Your task to perform on an android device: create a new album in the google photos Image 0: 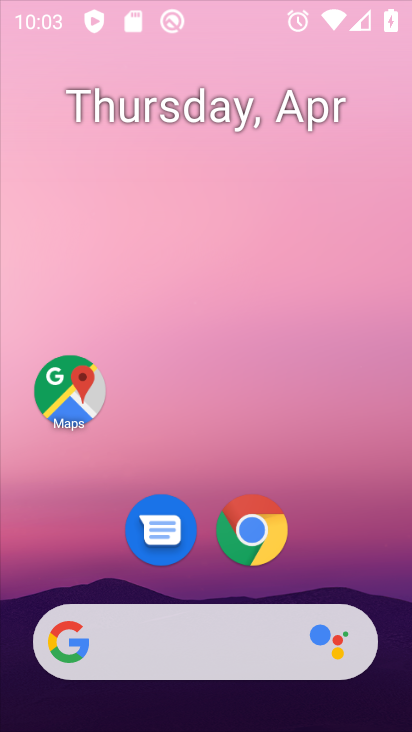
Step 0: drag from (285, 52) to (302, 588)
Your task to perform on an android device: create a new album in the google photos Image 1: 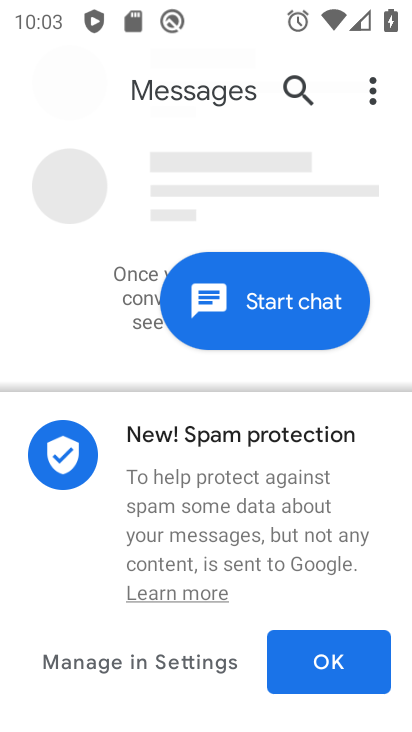
Step 1: press back button
Your task to perform on an android device: create a new album in the google photos Image 2: 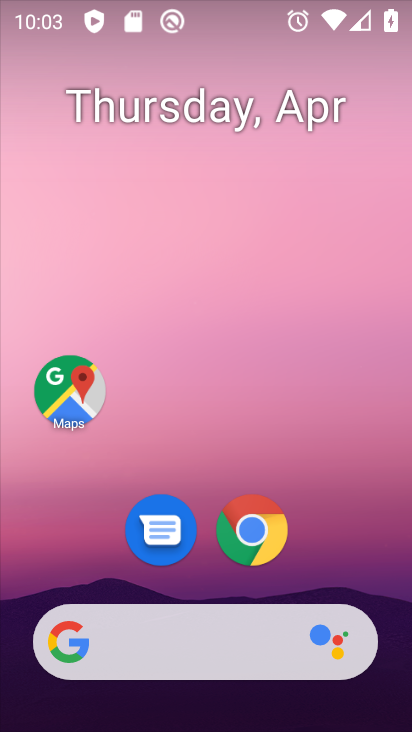
Step 2: drag from (205, 475) to (271, 34)
Your task to perform on an android device: create a new album in the google photos Image 3: 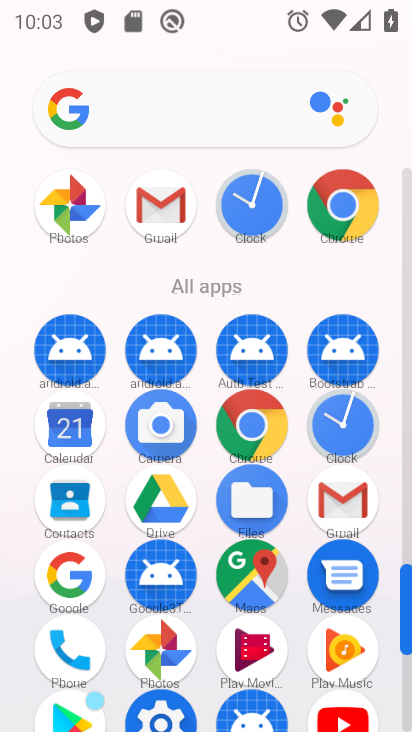
Step 3: drag from (189, 663) to (271, 374)
Your task to perform on an android device: create a new album in the google photos Image 4: 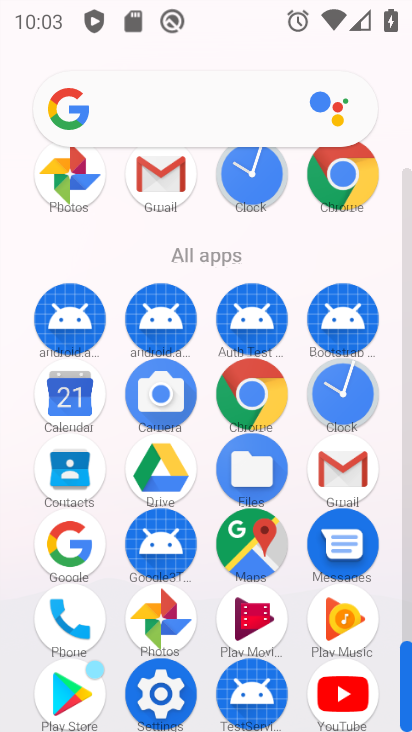
Step 4: click (165, 593)
Your task to perform on an android device: create a new album in the google photos Image 5: 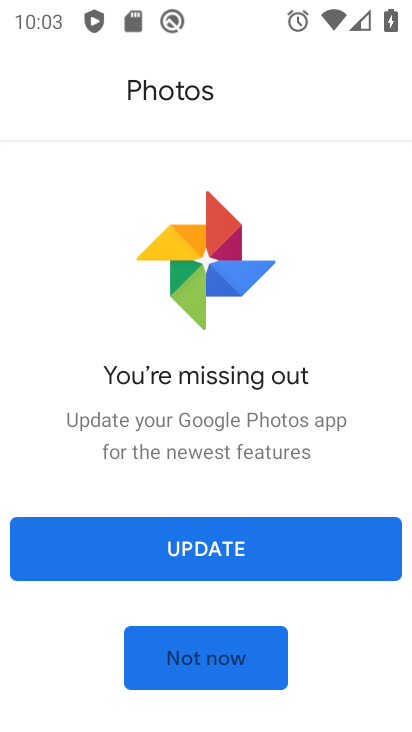
Step 5: click (245, 570)
Your task to perform on an android device: create a new album in the google photos Image 6: 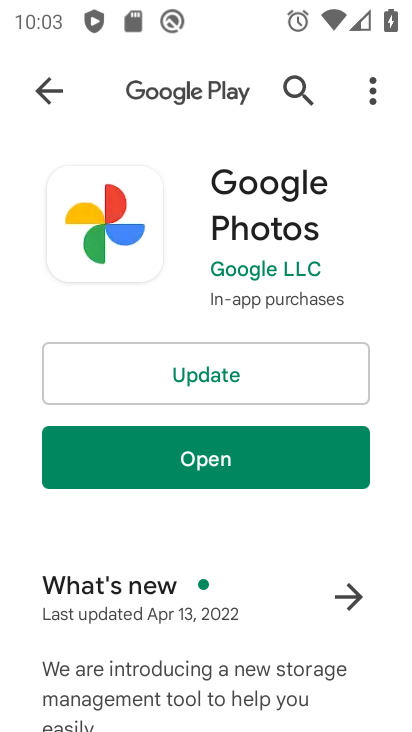
Step 6: click (274, 383)
Your task to perform on an android device: create a new album in the google photos Image 7: 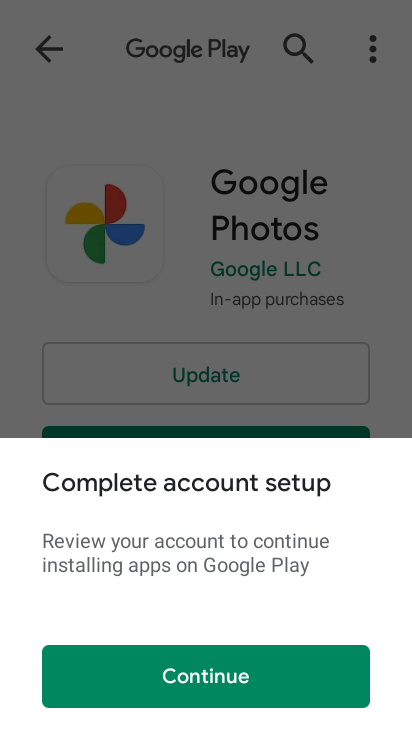
Step 7: click (294, 697)
Your task to perform on an android device: create a new album in the google photos Image 8: 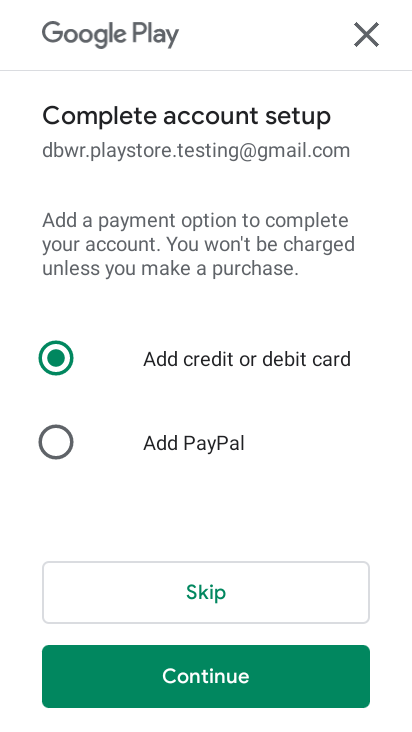
Step 8: click (266, 597)
Your task to perform on an android device: create a new album in the google photos Image 9: 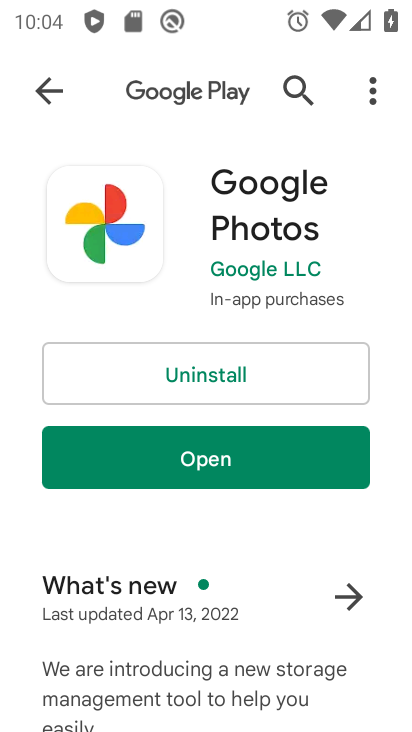
Step 9: click (257, 468)
Your task to perform on an android device: create a new album in the google photos Image 10: 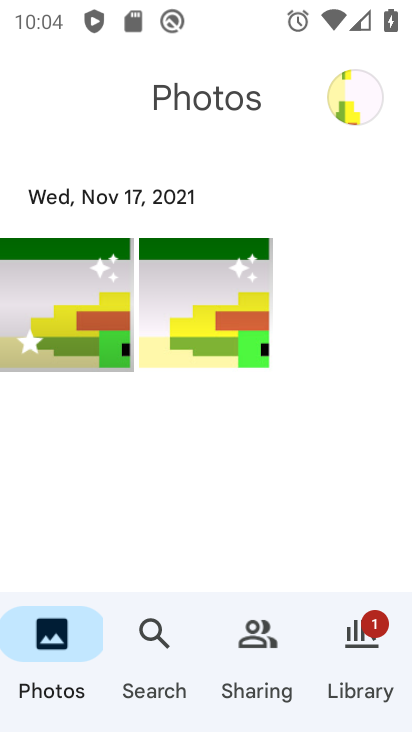
Step 10: click (183, 329)
Your task to perform on an android device: create a new album in the google photos Image 11: 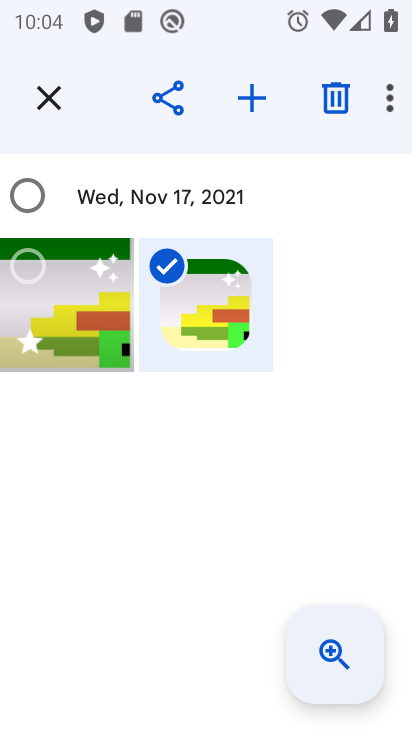
Step 11: click (83, 335)
Your task to perform on an android device: create a new album in the google photos Image 12: 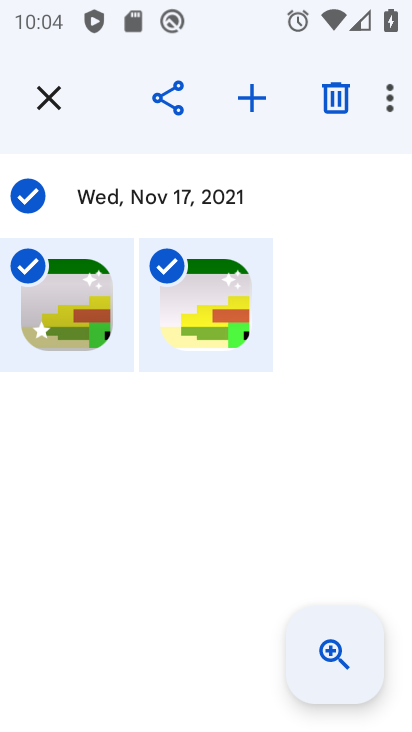
Step 12: click (250, 92)
Your task to perform on an android device: create a new album in the google photos Image 13: 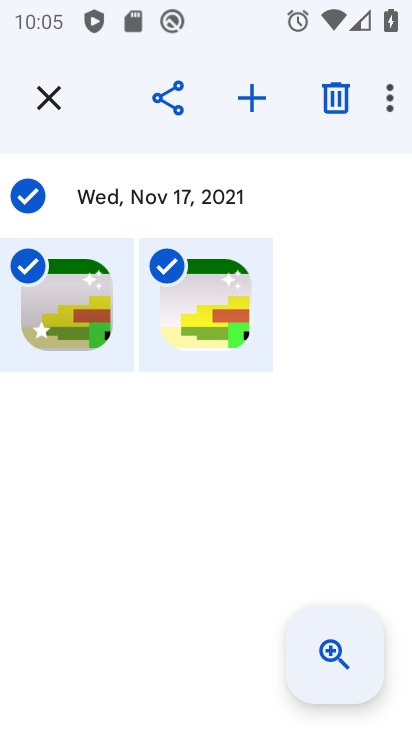
Step 13: click (267, 122)
Your task to perform on an android device: create a new album in the google photos Image 14: 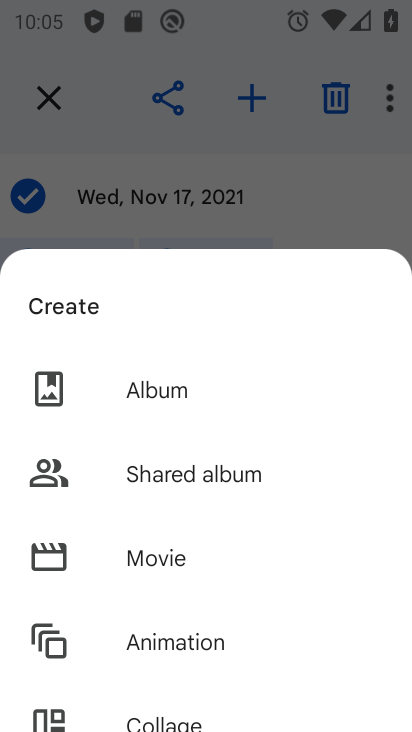
Step 14: click (220, 400)
Your task to perform on an android device: create a new album in the google photos Image 15: 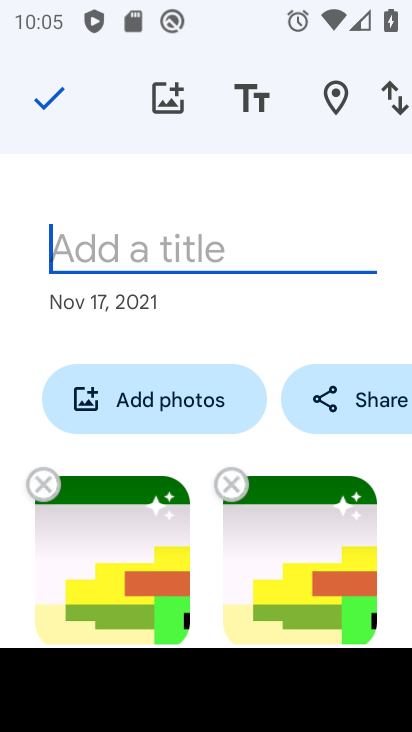
Step 15: type "aaaaa"
Your task to perform on an android device: create a new album in the google photos Image 16: 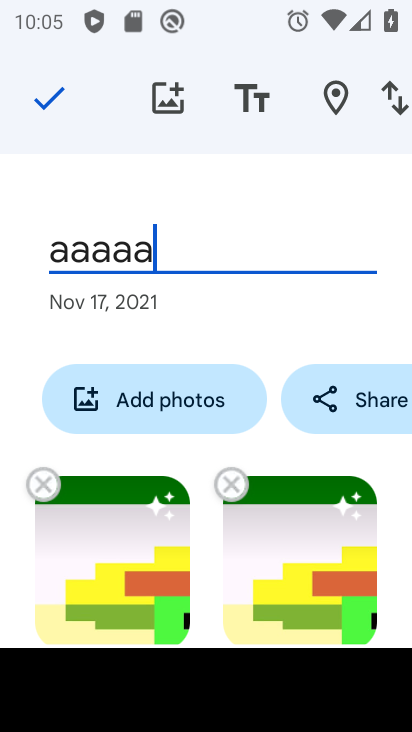
Step 16: click (51, 108)
Your task to perform on an android device: create a new album in the google photos Image 17: 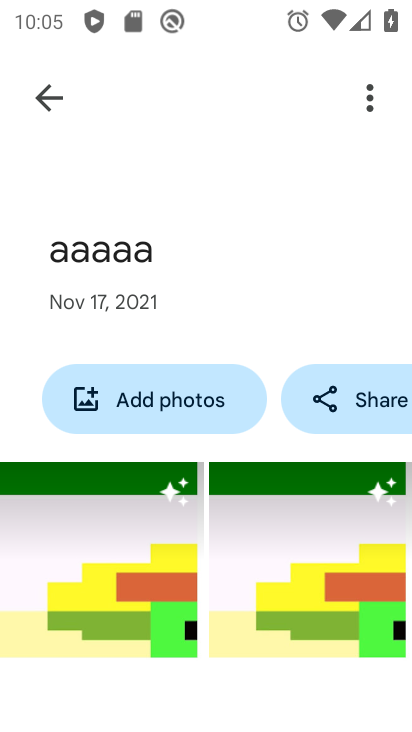
Step 17: task complete